Your task to perform on an android device: Open Yahoo.com Image 0: 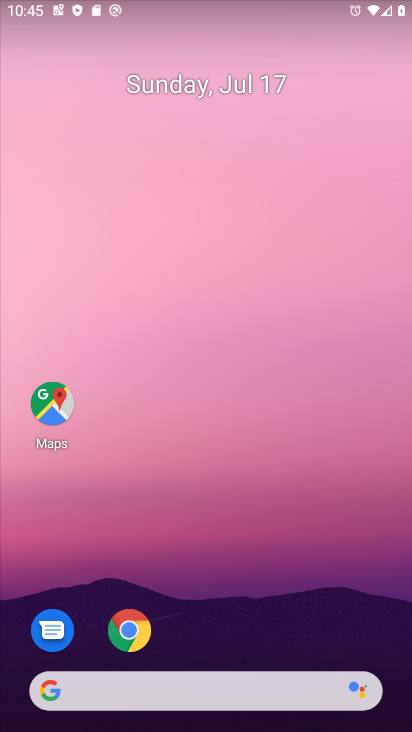
Step 0: click (361, 145)
Your task to perform on an android device: Open Yahoo.com Image 1: 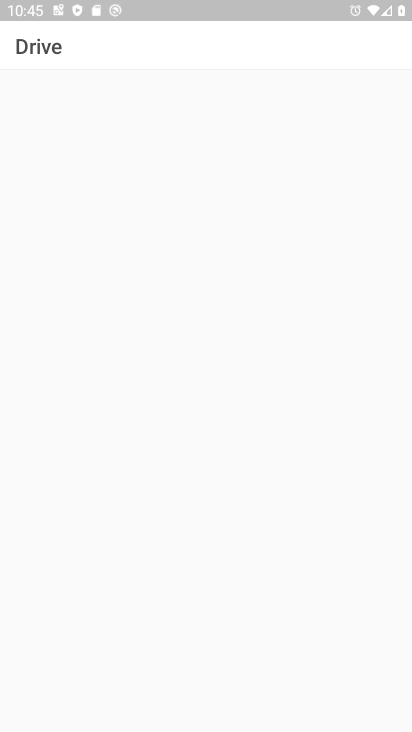
Step 1: press home button
Your task to perform on an android device: Open Yahoo.com Image 2: 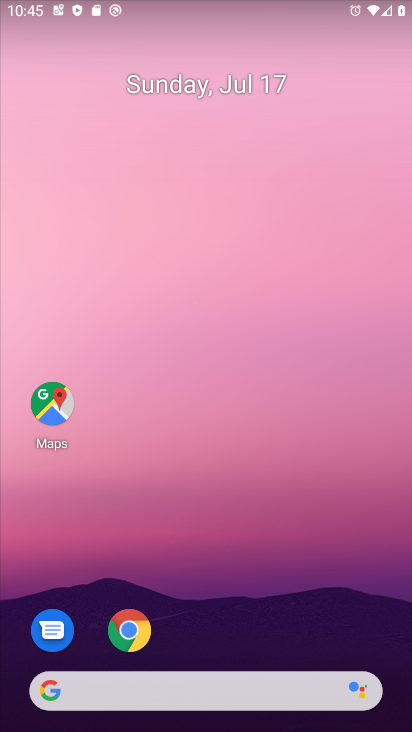
Step 2: drag from (346, 605) to (371, 117)
Your task to perform on an android device: Open Yahoo.com Image 3: 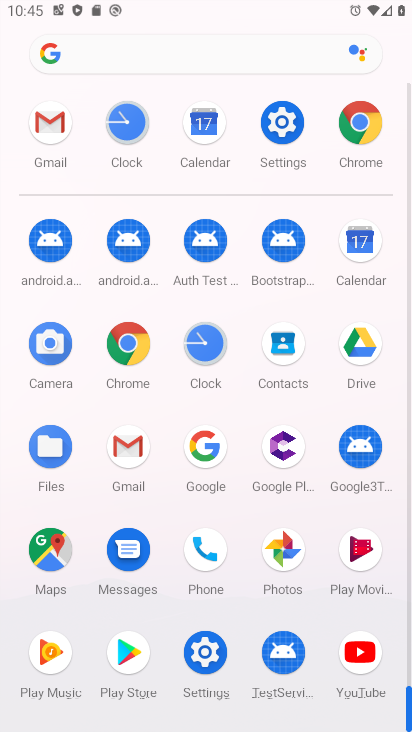
Step 3: click (129, 342)
Your task to perform on an android device: Open Yahoo.com Image 4: 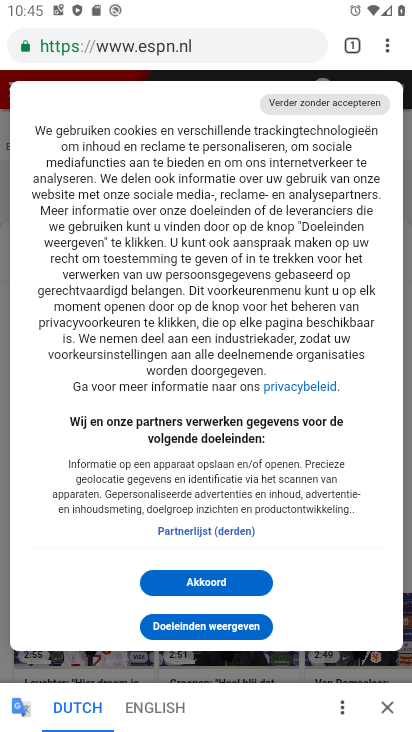
Step 4: click (237, 40)
Your task to perform on an android device: Open Yahoo.com Image 5: 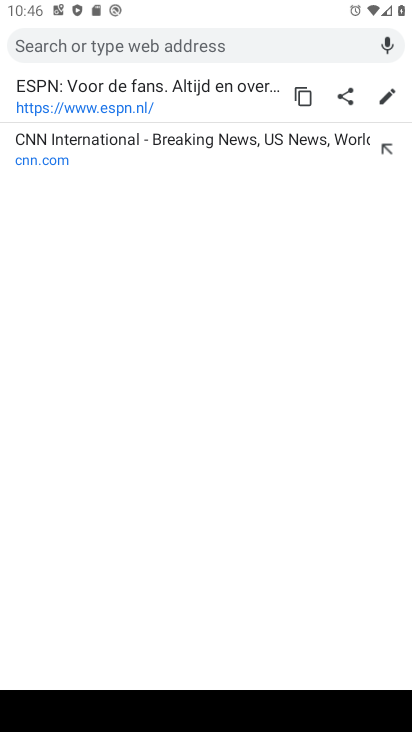
Step 5: type "yahoo.com"
Your task to perform on an android device: Open Yahoo.com Image 6: 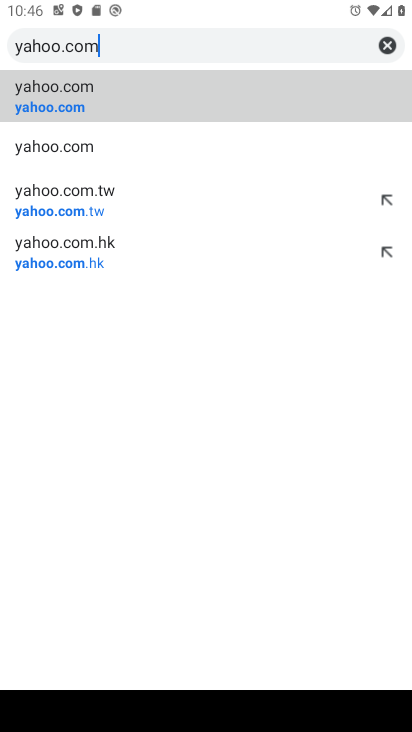
Step 6: click (284, 104)
Your task to perform on an android device: Open Yahoo.com Image 7: 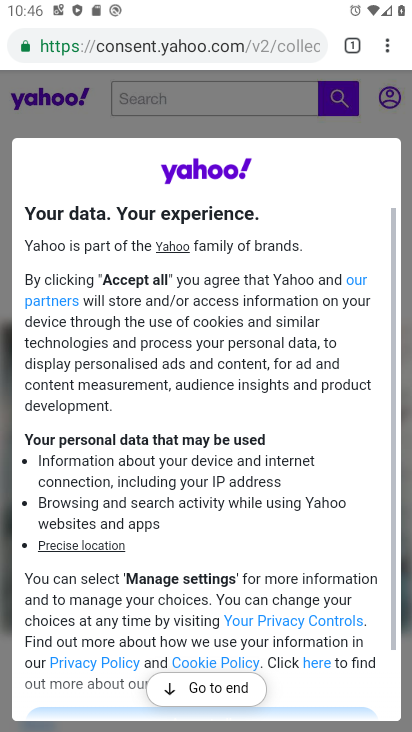
Step 7: task complete